Your task to perform on an android device: visit the assistant section in the google photos Image 0: 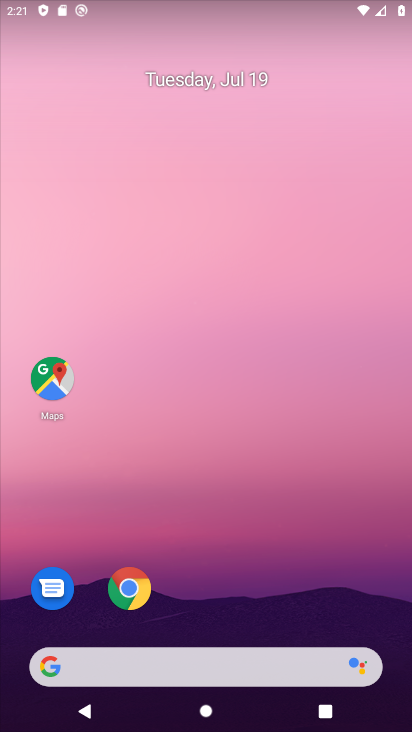
Step 0: press home button
Your task to perform on an android device: visit the assistant section in the google photos Image 1: 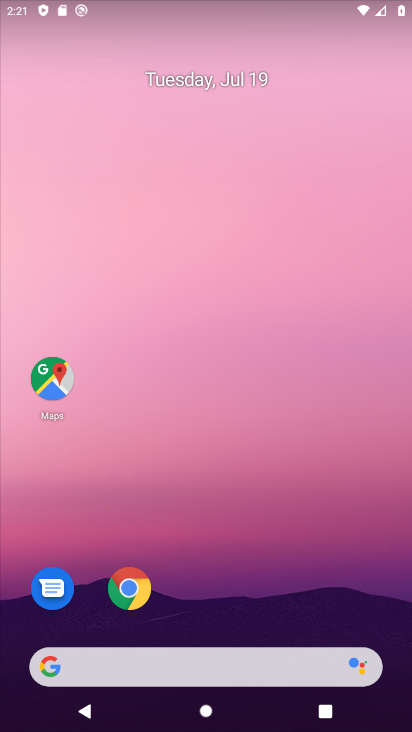
Step 1: drag from (250, 635) to (259, 186)
Your task to perform on an android device: visit the assistant section in the google photos Image 2: 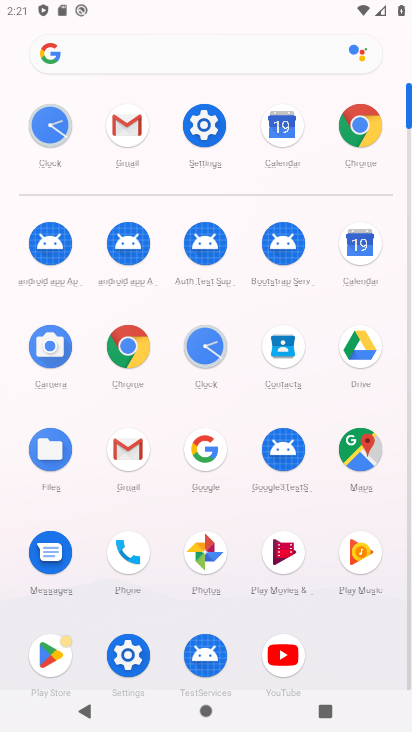
Step 2: click (202, 563)
Your task to perform on an android device: visit the assistant section in the google photos Image 3: 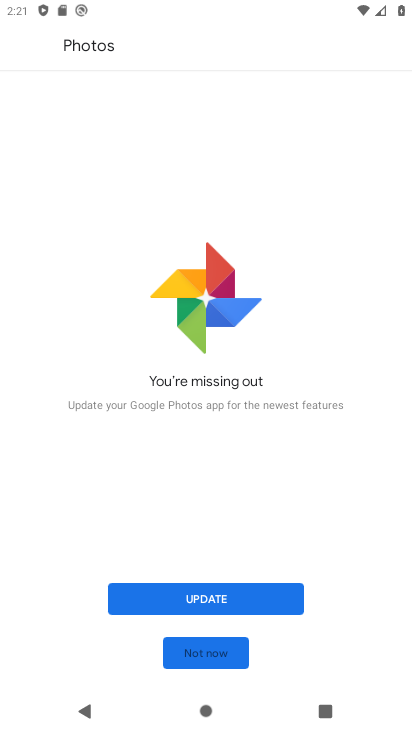
Step 3: click (229, 602)
Your task to perform on an android device: visit the assistant section in the google photos Image 4: 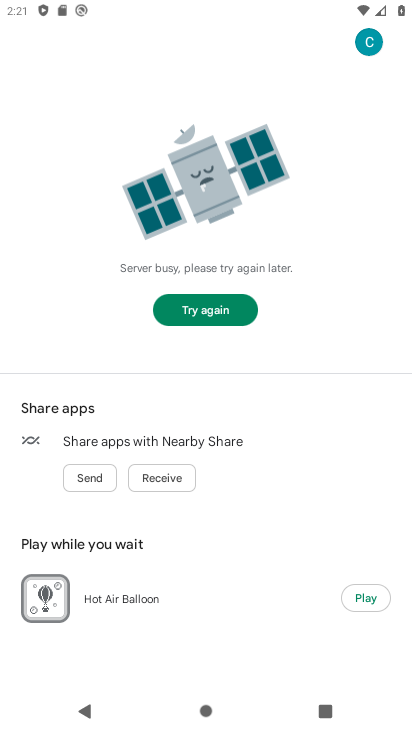
Step 4: click (204, 317)
Your task to perform on an android device: visit the assistant section in the google photos Image 5: 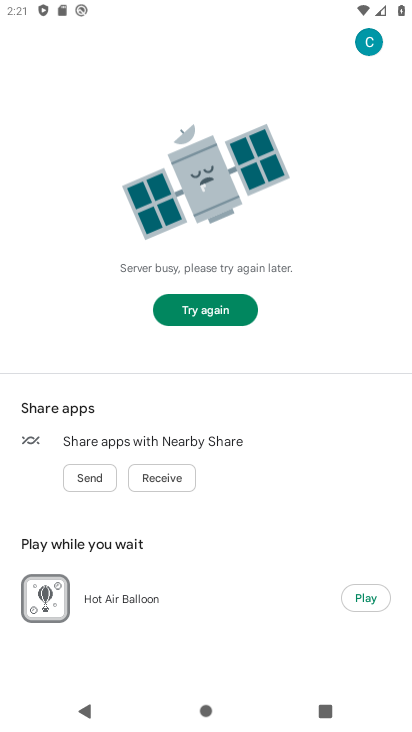
Step 5: click (204, 321)
Your task to perform on an android device: visit the assistant section in the google photos Image 6: 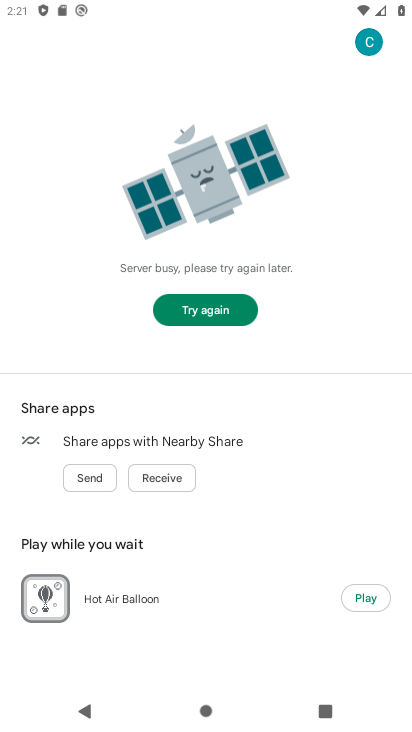
Step 6: task complete